Your task to perform on an android device: turn on data saver in the chrome app Image 0: 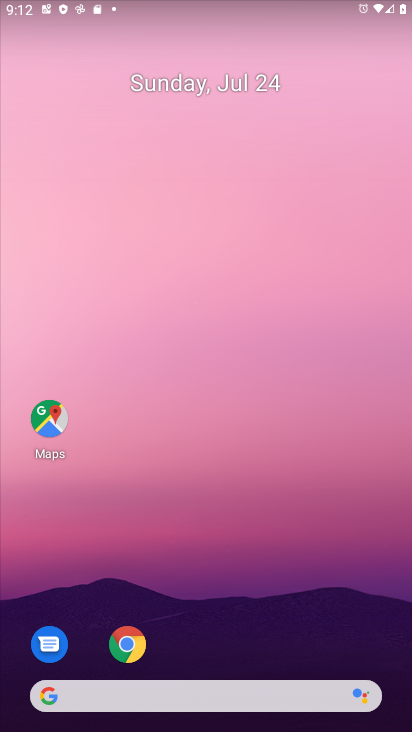
Step 0: drag from (260, 646) to (260, 139)
Your task to perform on an android device: turn on data saver in the chrome app Image 1: 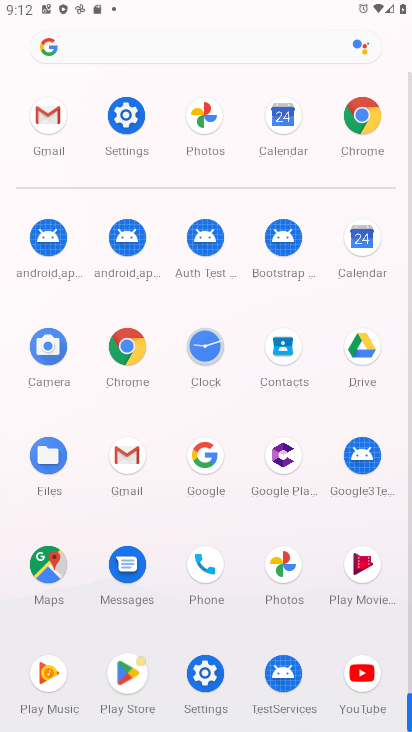
Step 1: click (354, 123)
Your task to perform on an android device: turn on data saver in the chrome app Image 2: 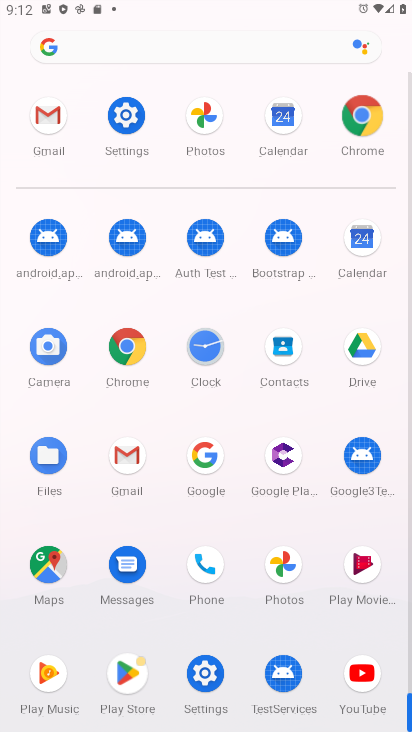
Step 2: click (354, 123)
Your task to perform on an android device: turn on data saver in the chrome app Image 3: 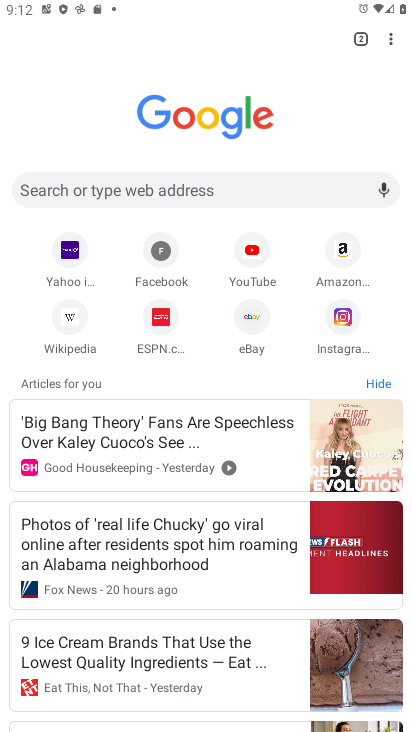
Step 3: drag from (394, 44) to (253, 332)
Your task to perform on an android device: turn on data saver in the chrome app Image 4: 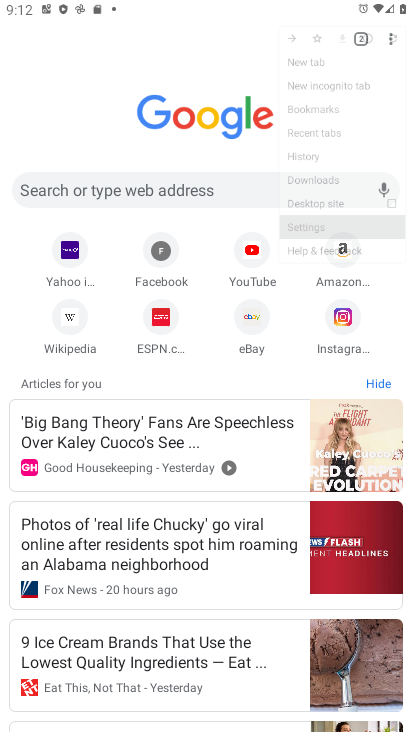
Step 4: click (253, 332)
Your task to perform on an android device: turn on data saver in the chrome app Image 5: 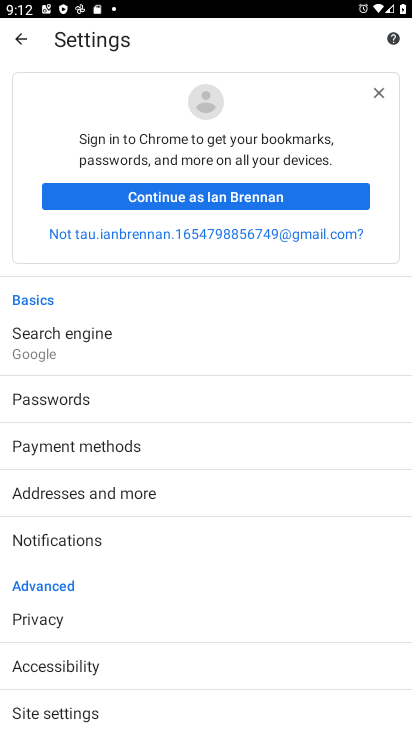
Step 5: drag from (128, 569) to (128, 139)
Your task to perform on an android device: turn on data saver in the chrome app Image 6: 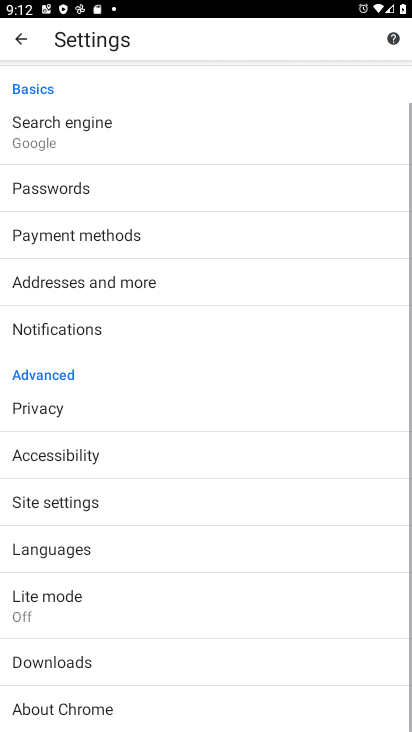
Step 6: drag from (129, 451) to (129, 208)
Your task to perform on an android device: turn on data saver in the chrome app Image 7: 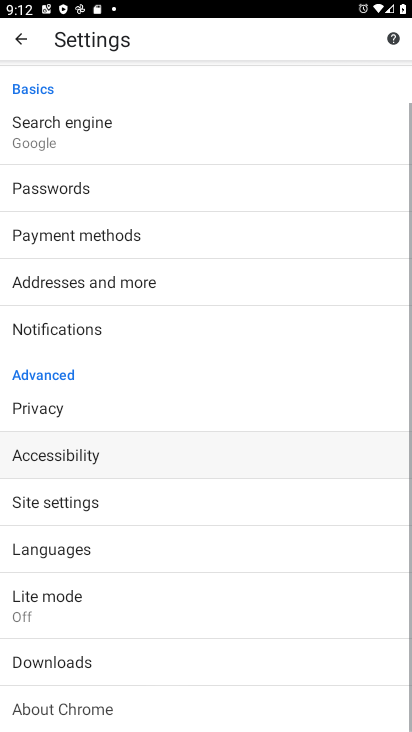
Step 7: drag from (129, 501) to (140, 229)
Your task to perform on an android device: turn on data saver in the chrome app Image 8: 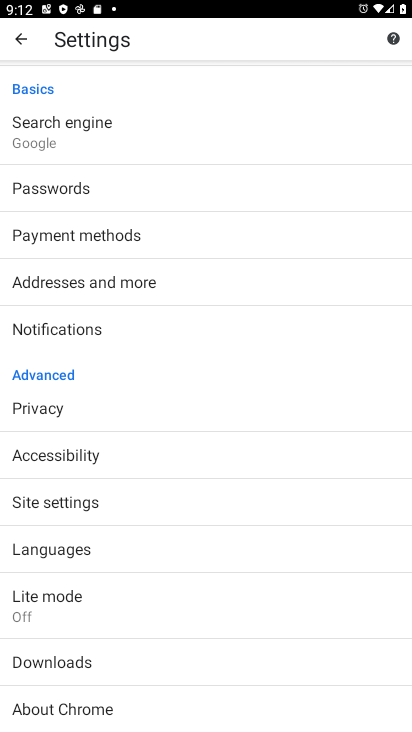
Step 8: click (36, 588)
Your task to perform on an android device: turn on data saver in the chrome app Image 9: 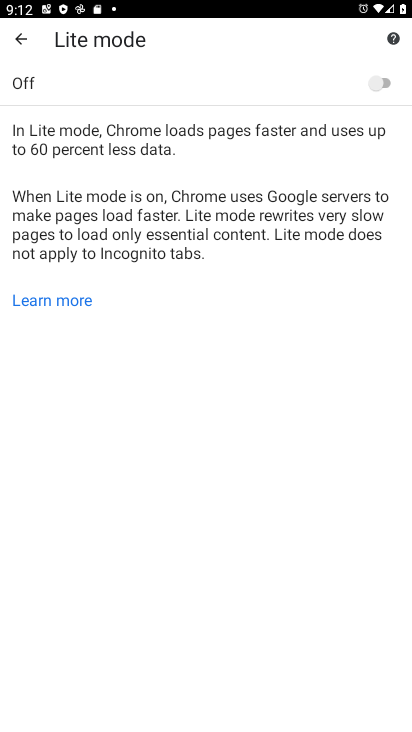
Step 9: click (380, 69)
Your task to perform on an android device: turn on data saver in the chrome app Image 10: 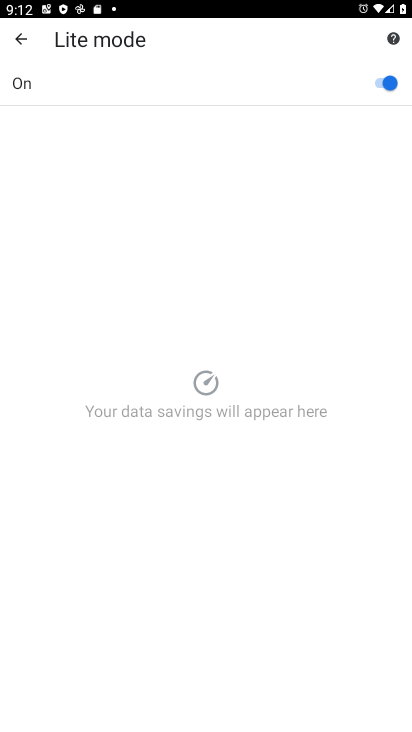
Step 10: task complete